Your task to perform on an android device: Open Reddit.com Image 0: 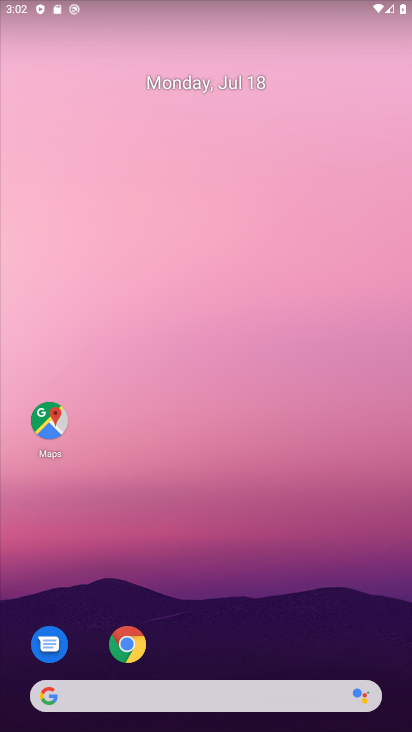
Step 0: press home button
Your task to perform on an android device: Open Reddit.com Image 1: 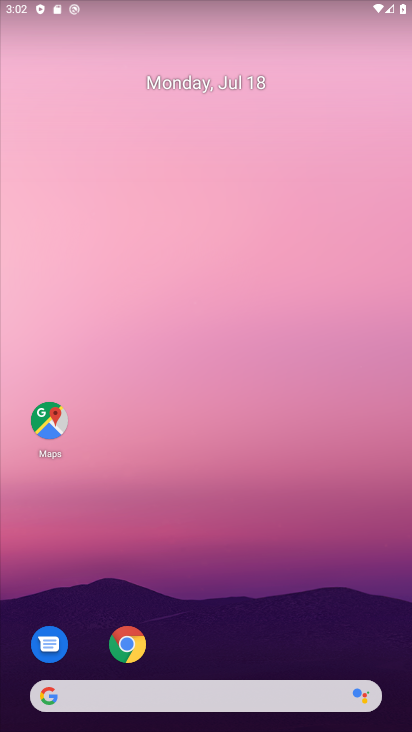
Step 1: click (44, 707)
Your task to perform on an android device: Open Reddit.com Image 2: 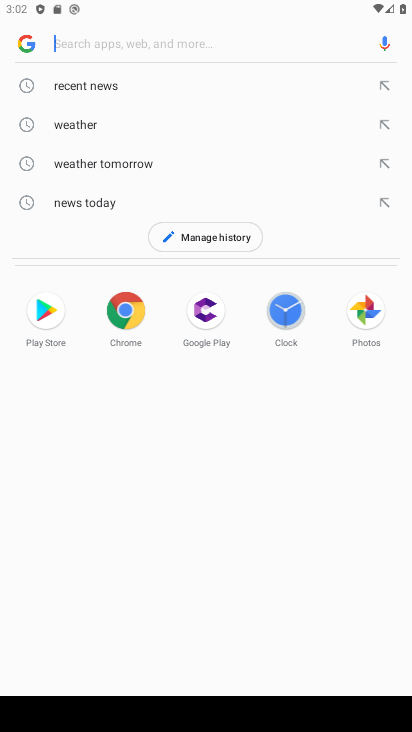
Step 2: click (283, 569)
Your task to perform on an android device: Open Reddit.com Image 3: 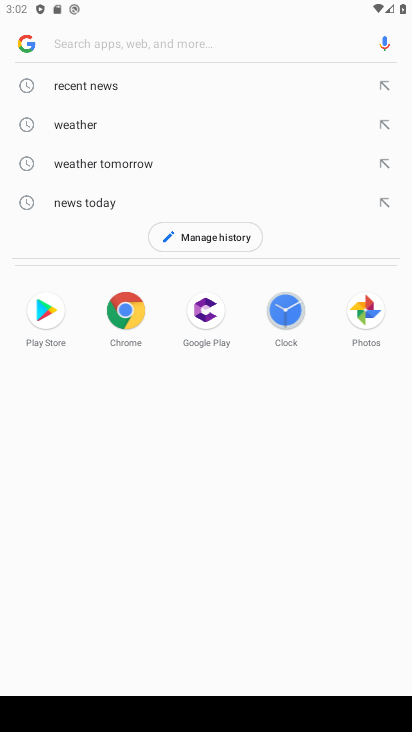
Step 3: type " Reddit.com"
Your task to perform on an android device: Open Reddit.com Image 4: 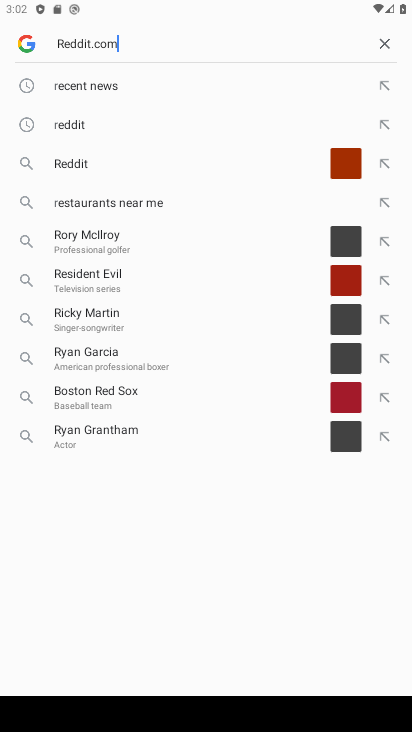
Step 4: press enter
Your task to perform on an android device: Open Reddit.com Image 5: 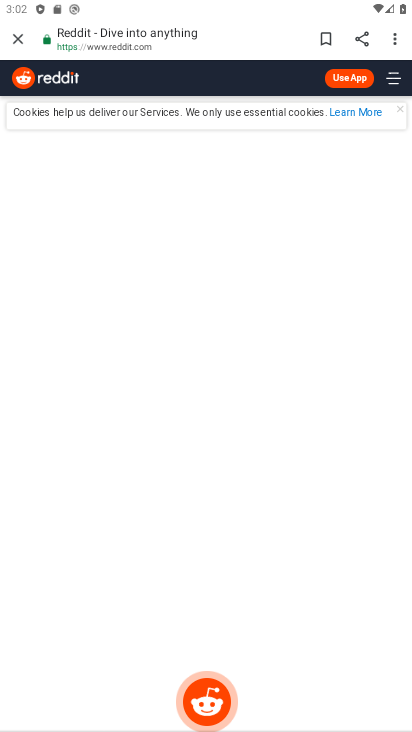
Step 5: task complete